Your task to perform on an android device: turn on priority inbox in the gmail app Image 0: 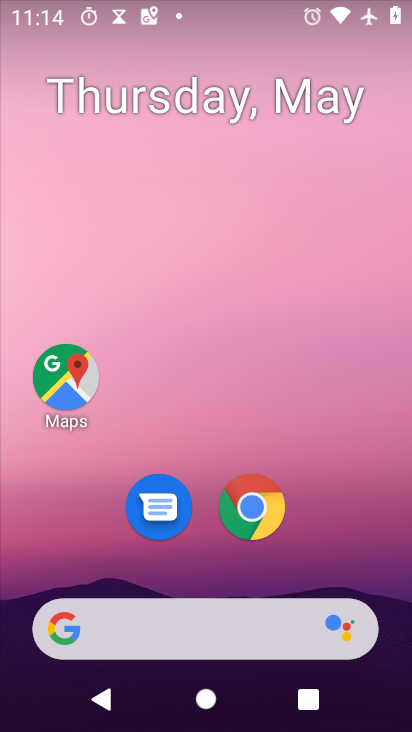
Step 0: click (270, 27)
Your task to perform on an android device: turn on priority inbox in the gmail app Image 1: 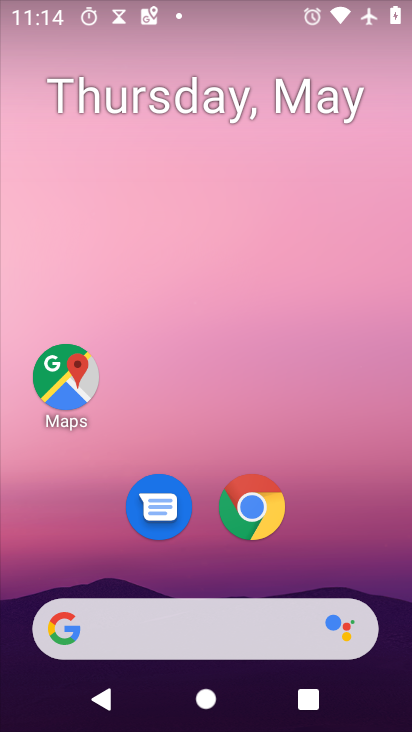
Step 1: drag from (353, 550) to (269, 49)
Your task to perform on an android device: turn on priority inbox in the gmail app Image 2: 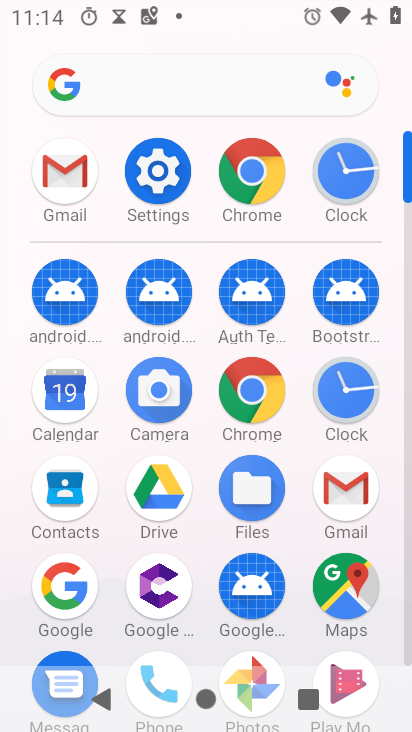
Step 2: click (61, 162)
Your task to perform on an android device: turn on priority inbox in the gmail app Image 3: 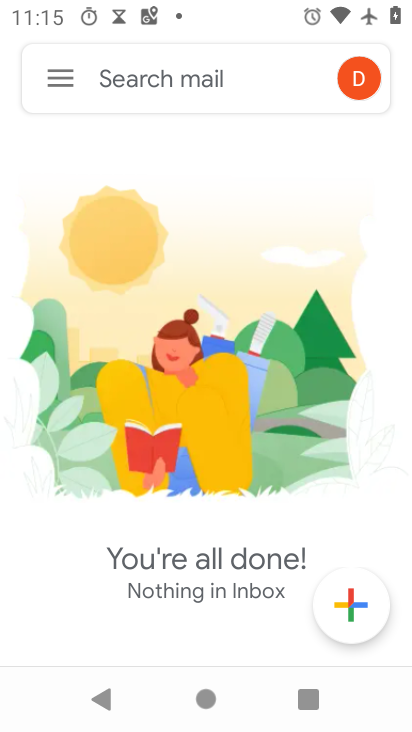
Step 3: click (59, 73)
Your task to perform on an android device: turn on priority inbox in the gmail app Image 4: 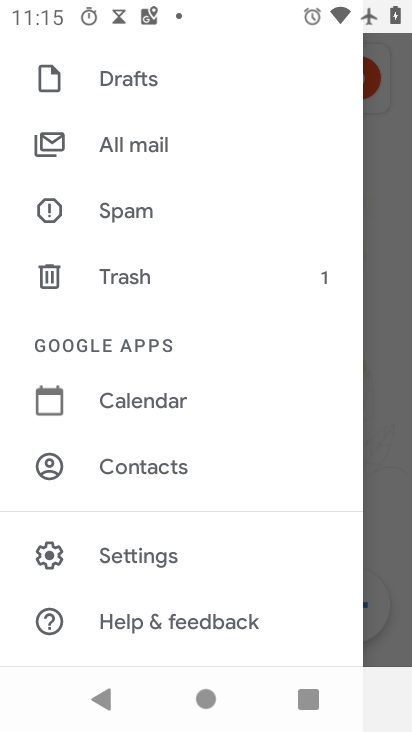
Step 4: click (130, 549)
Your task to perform on an android device: turn on priority inbox in the gmail app Image 5: 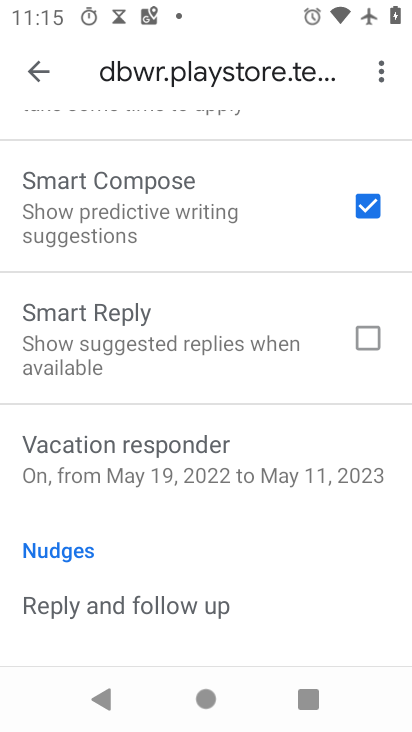
Step 5: drag from (170, 289) to (179, 687)
Your task to perform on an android device: turn on priority inbox in the gmail app Image 6: 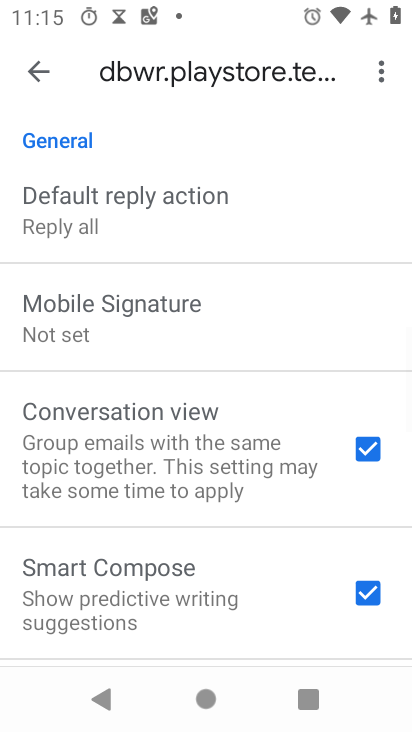
Step 6: drag from (178, 252) to (178, 665)
Your task to perform on an android device: turn on priority inbox in the gmail app Image 7: 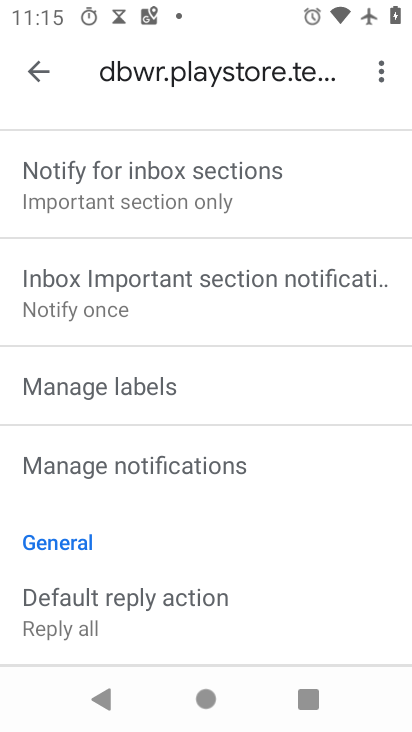
Step 7: drag from (175, 315) to (158, 633)
Your task to perform on an android device: turn on priority inbox in the gmail app Image 8: 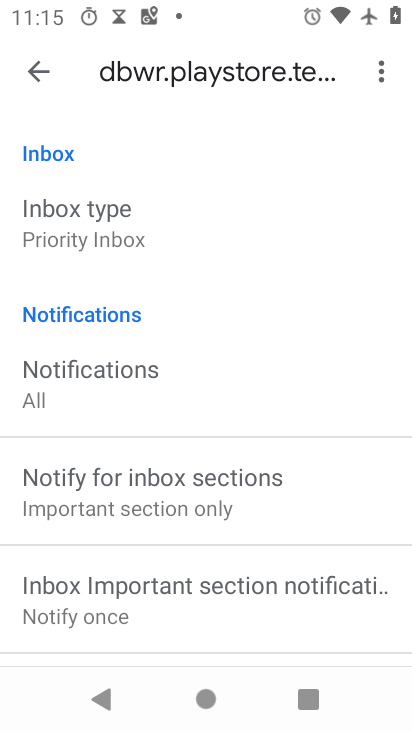
Step 8: click (125, 229)
Your task to perform on an android device: turn on priority inbox in the gmail app Image 9: 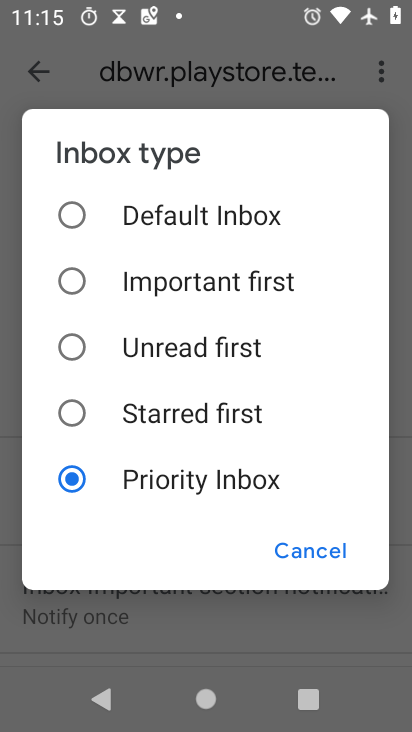
Step 9: click (220, 467)
Your task to perform on an android device: turn on priority inbox in the gmail app Image 10: 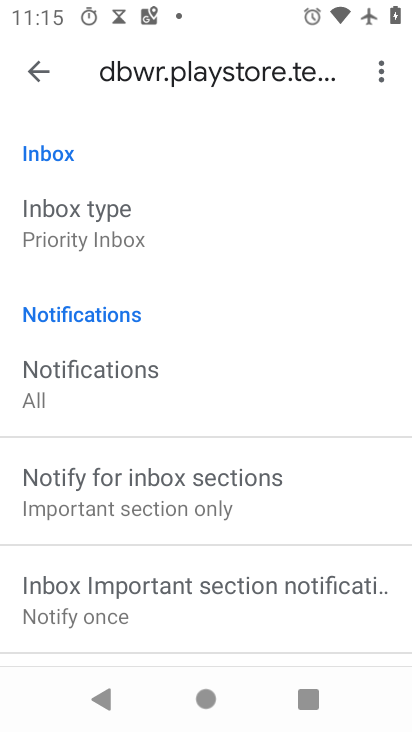
Step 10: task complete